Your task to perform on an android device: move an email to a new category in the gmail app Image 0: 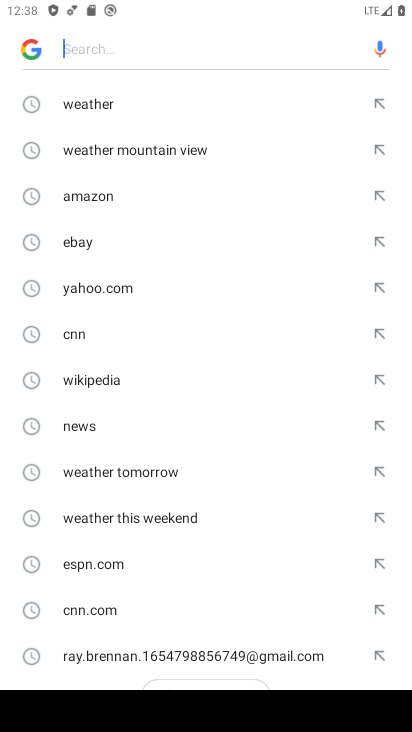
Step 0: press home button
Your task to perform on an android device: move an email to a new category in the gmail app Image 1: 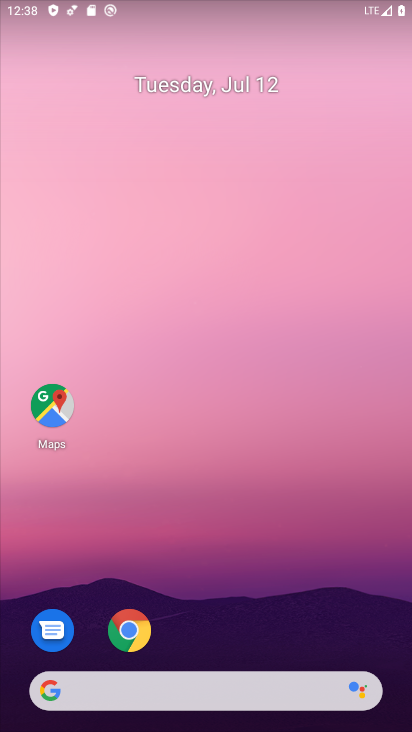
Step 1: drag from (317, 582) to (366, 11)
Your task to perform on an android device: move an email to a new category in the gmail app Image 2: 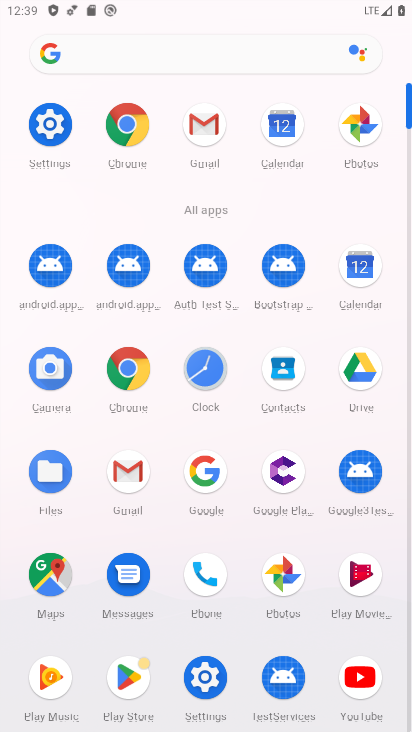
Step 2: click (120, 461)
Your task to perform on an android device: move an email to a new category in the gmail app Image 3: 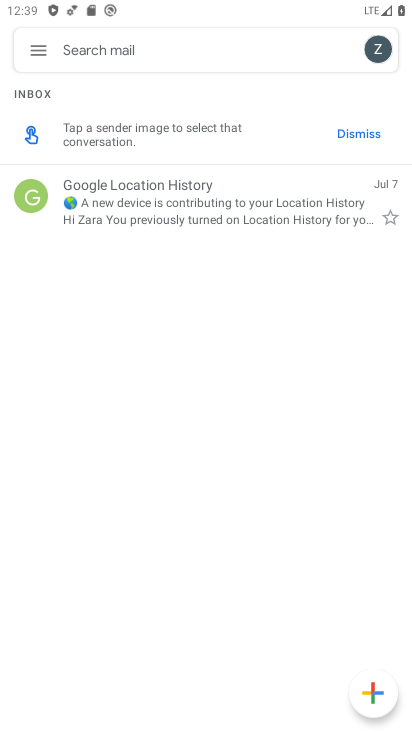
Step 3: click (115, 191)
Your task to perform on an android device: move an email to a new category in the gmail app Image 4: 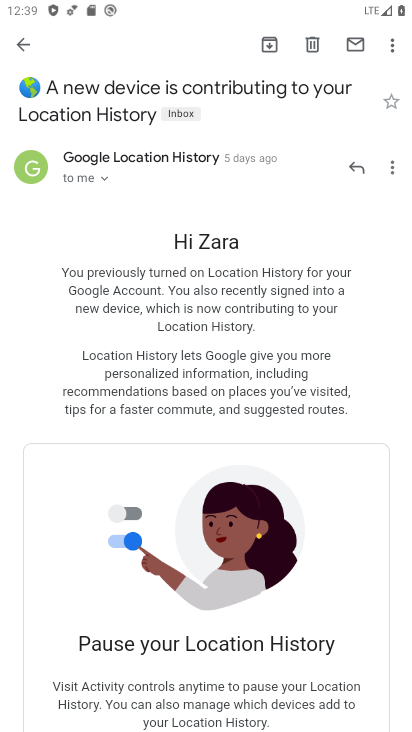
Step 4: click (181, 116)
Your task to perform on an android device: move an email to a new category in the gmail app Image 5: 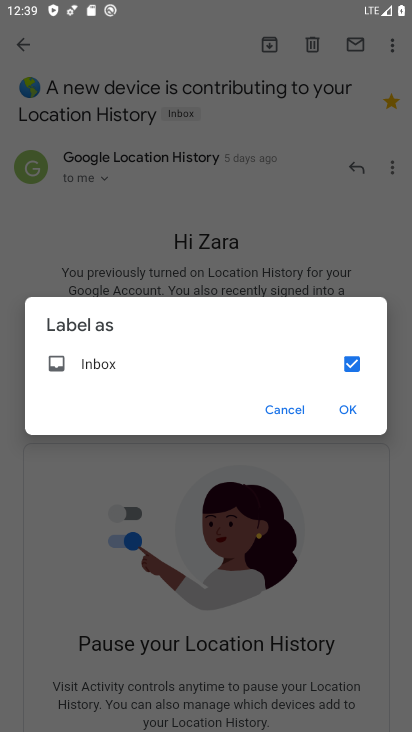
Step 5: click (334, 359)
Your task to perform on an android device: move an email to a new category in the gmail app Image 6: 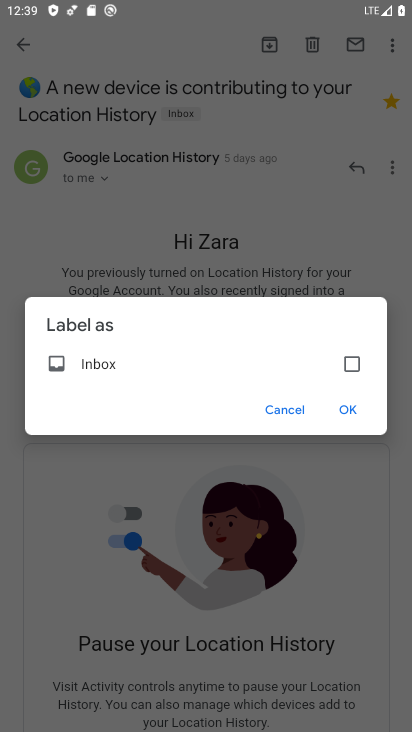
Step 6: click (351, 411)
Your task to perform on an android device: move an email to a new category in the gmail app Image 7: 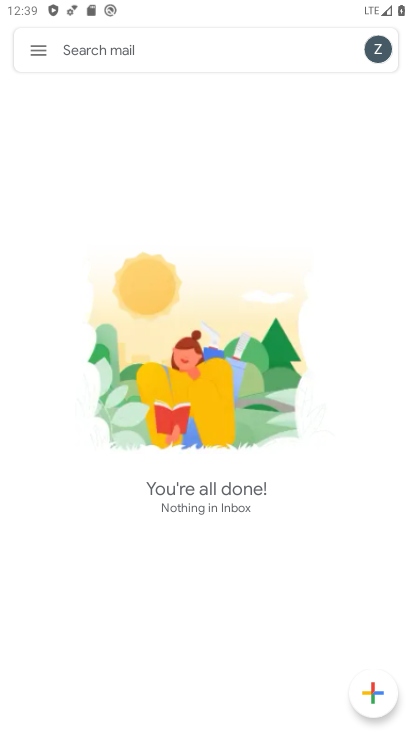
Step 7: task complete